Your task to perform on an android device: Open eBay Image 0: 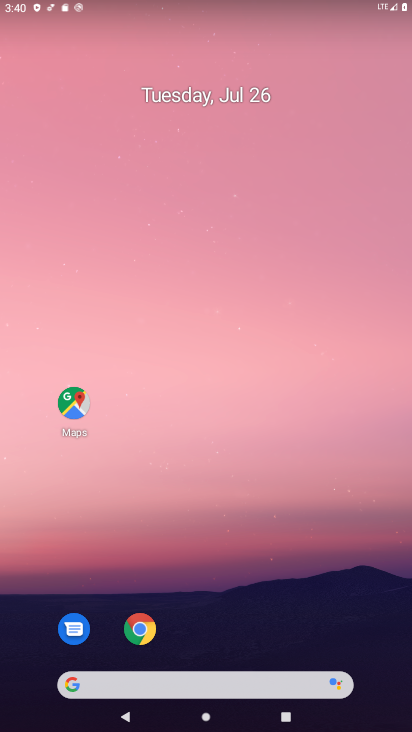
Step 0: click (141, 626)
Your task to perform on an android device: Open eBay Image 1: 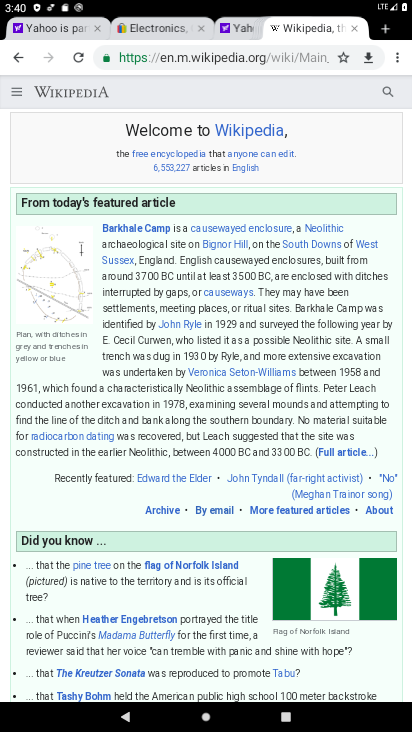
Step 1: click (397, 63)
Your task to perform on an android device: Open eBay Image 2: 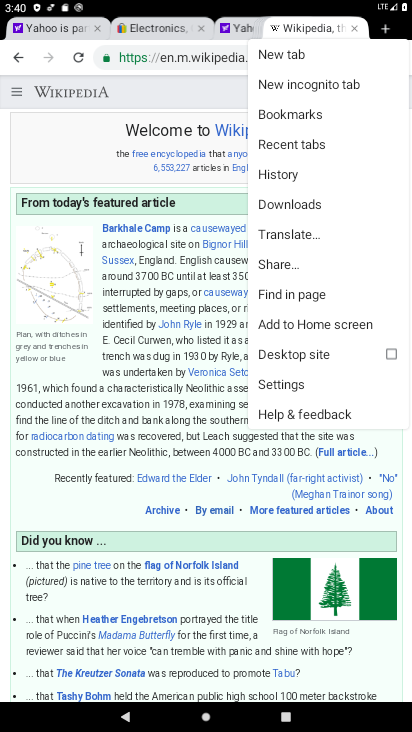
Step 2: click (279, 53)
Your task to perform on an android device: Open eBay Image 3: 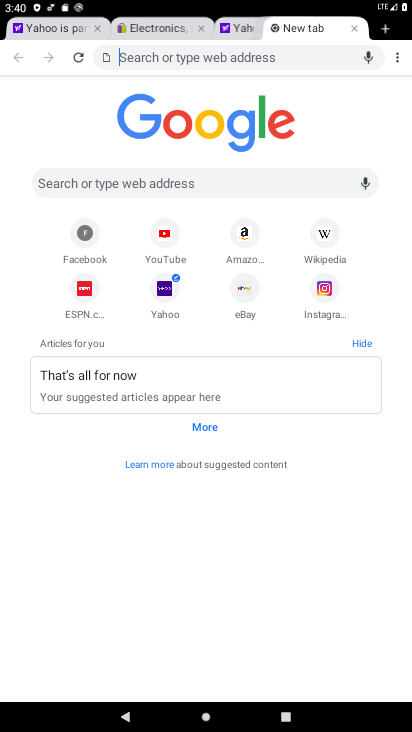
Step 3: click (236, 287)
Your task to perform on an android device: Open eBay Image 4: 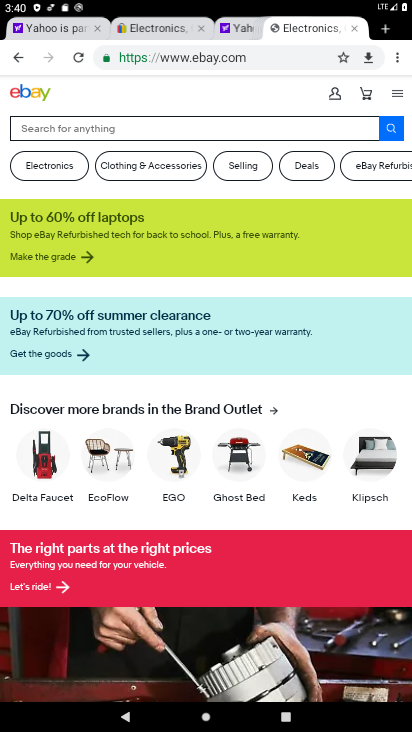
Step 4: task complete